Your task to perform on an android device: open a bookmark in the chrome app Image 0: 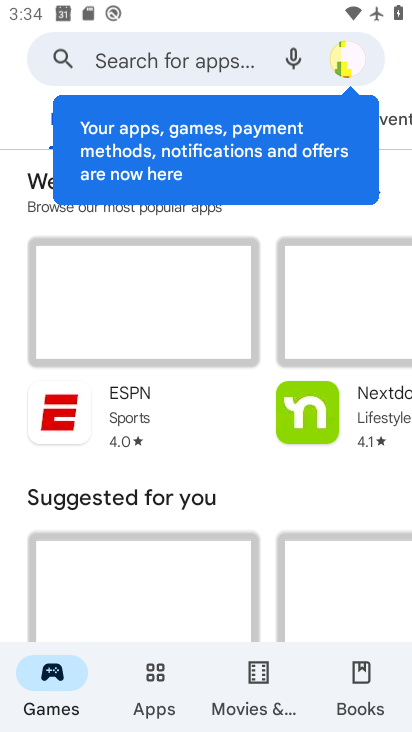
Step 0: press home button
Your task to perform on an android device: open a bookmark in the chrome app Image 1: 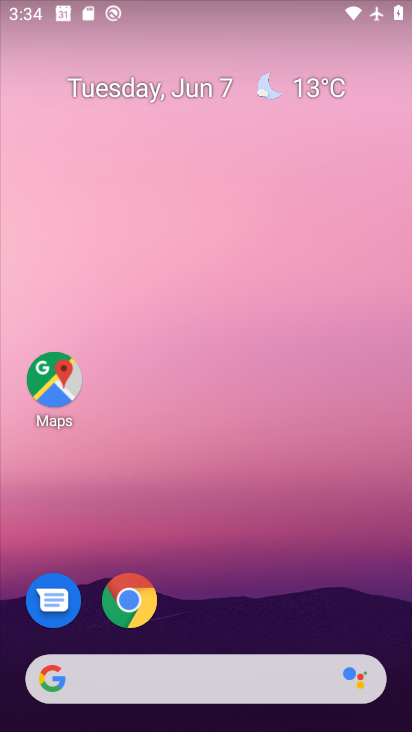
Step 1: drag from (228, 560) to (252, 156)
Your task to perform on an android device: open a bookmark in the chrome app Image 2: 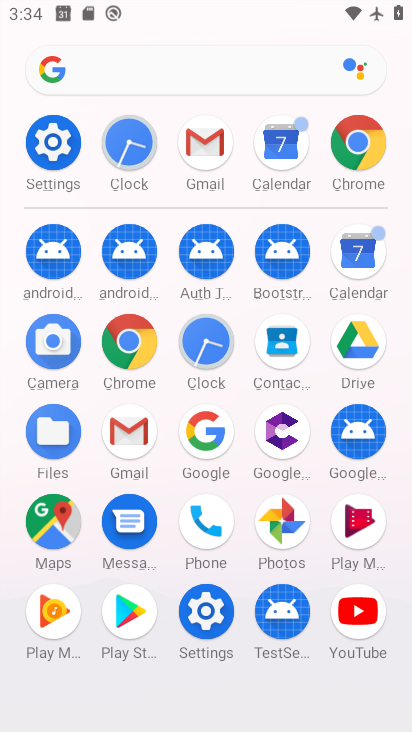
Step 2: click (135, 339)
Your task to perform on an android device: open a bookmark in the chrome app Image 3: 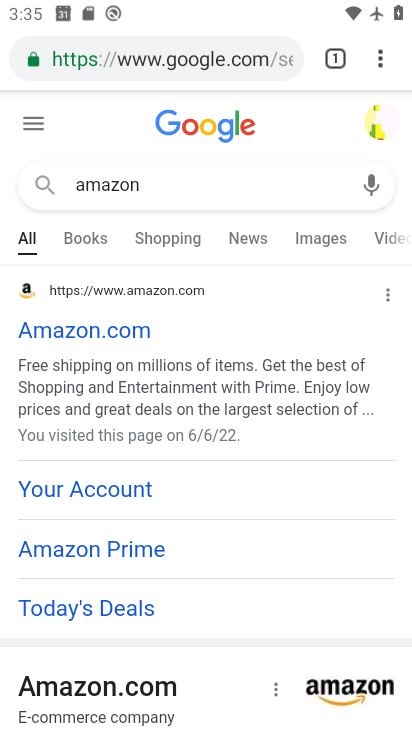
Step 3: task complete